Your task to perform on an android device: Go to Maps Image 0: 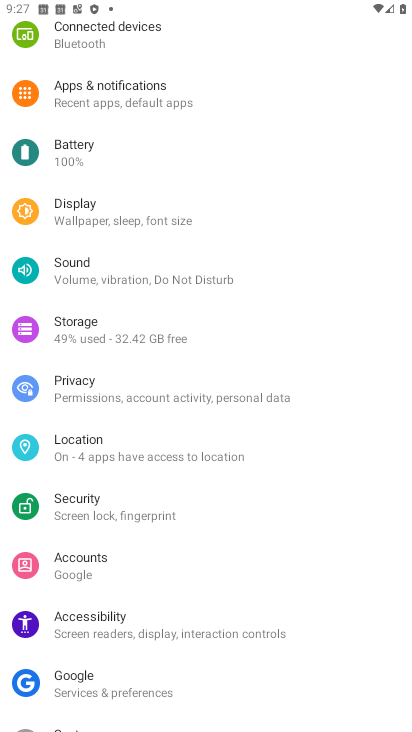
Step 0: press home button
Your task to perform on an android device: Go to Maps Image 1: 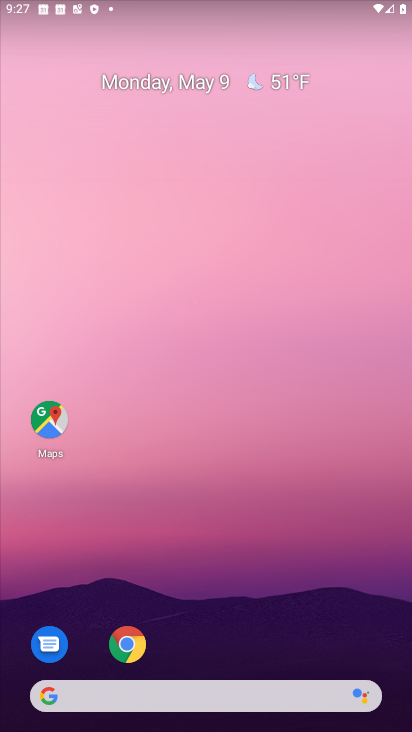
Step 1: drag from (215, 670) to (113, 5)
Your task to perform on an android device: Go to Maps Image 2: 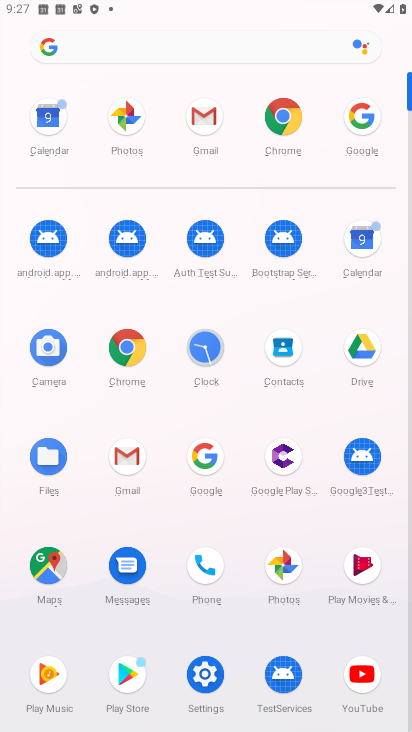
Step 2: click (50, 575)
Your task to perform on an android device: Go to Maps Image 3: 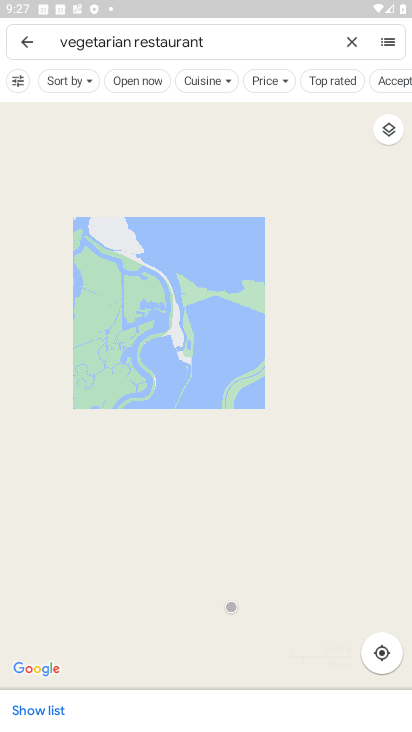
Step 3: click (30, 44)
Your task to perform on an android device: Go to Maps Image 4: 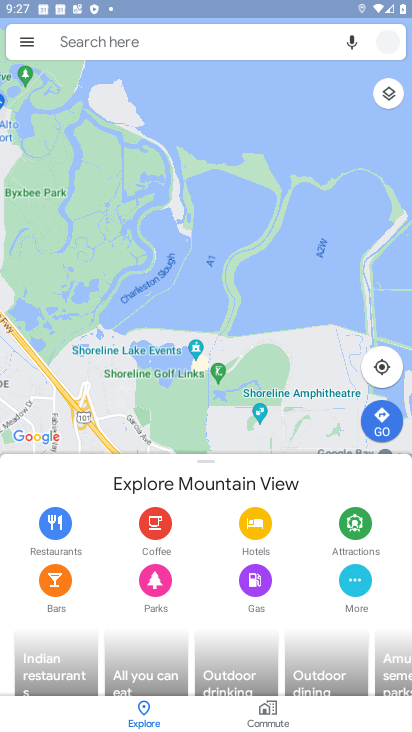
Step 4: task complete